Your task to perform on an android device: Open internet settings Image 0: 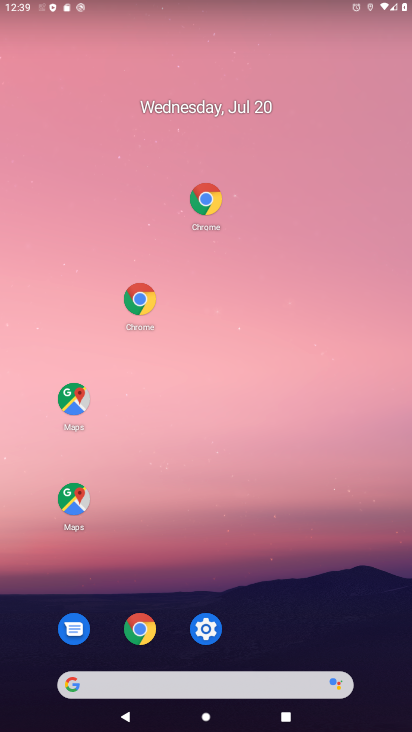
Step 0: drag from (300, 644) to (195, 78)
Your task to perform on an android device: Open internet settings Image 1: 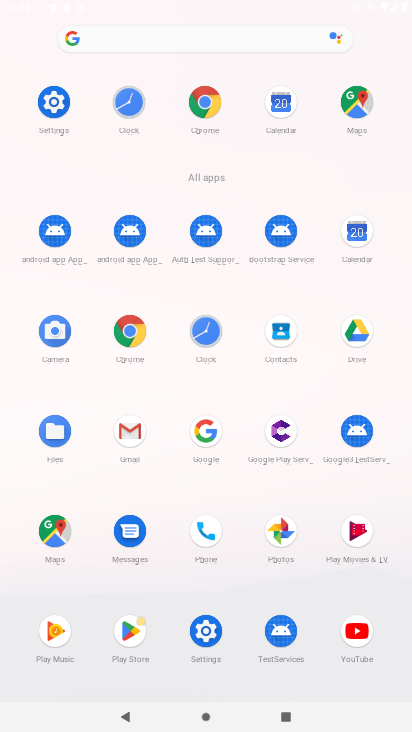
Step 1: click (201, 626)
Your task to perform on an android device: Open internet settings Image 2: 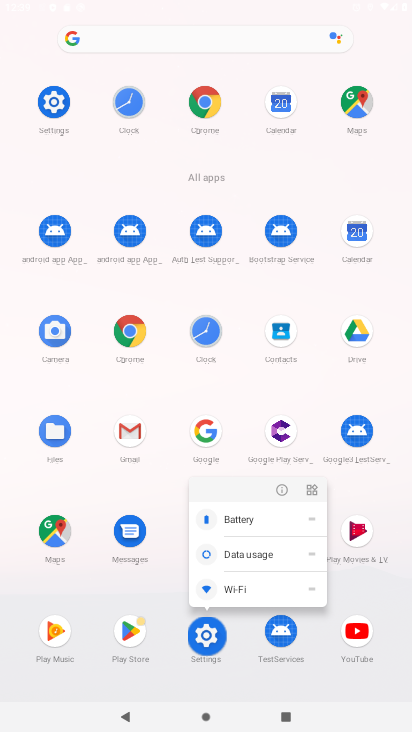
Step 2: click (210, 629)
Your task to perform on an android device: Open internet settings Image 3: 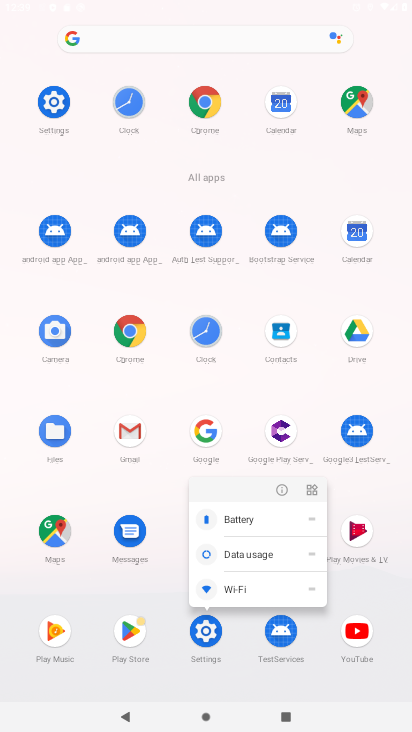
Step 3: click (212, 630)
Your task to perform on an android device: Open internet settings Image 4: 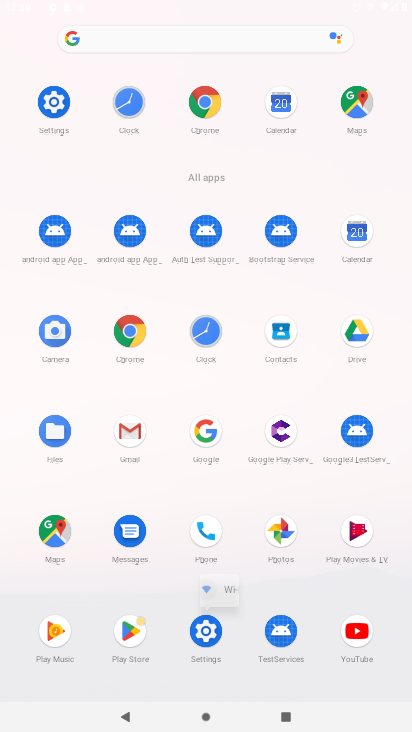
Step 4: click (212, 630)
Your task to perform on an android device: Open internet settings Image 5: 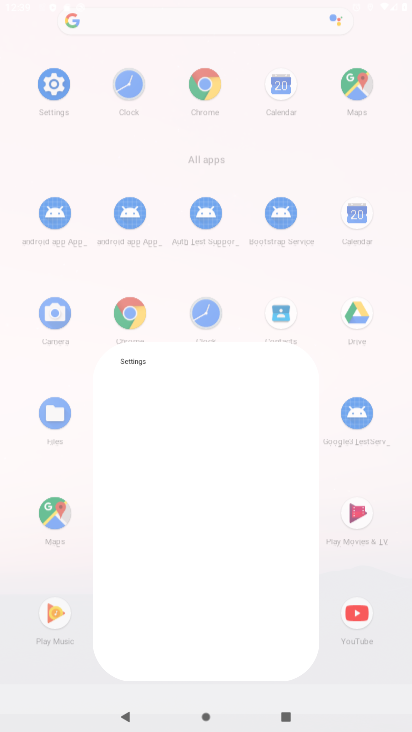
Step 5: click (212, 630)
Your task to perform on an android device: Open internet settings Image 6: 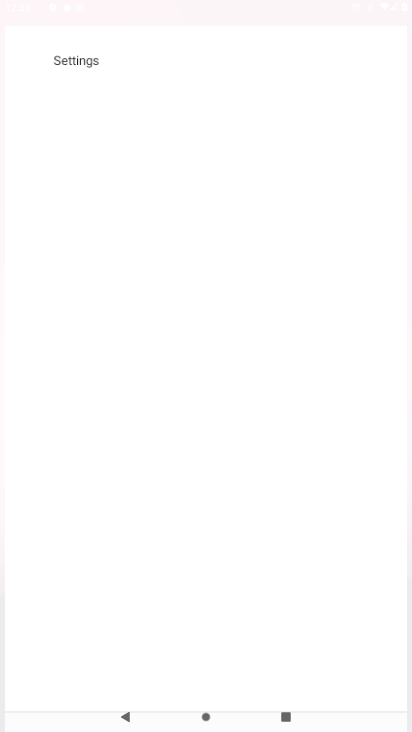
Step 6: click (212, 628)
Your task to perform on an android device: Open internet settings Image 7: 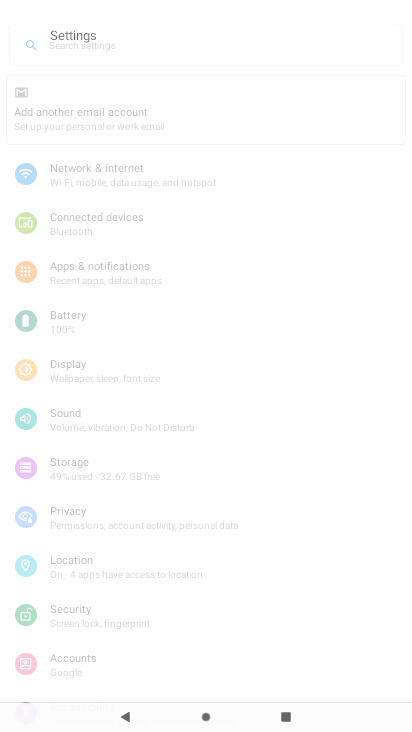
Step 7: click (214, 629)
Your task to perform on an android device: Open internet settings Image 8: 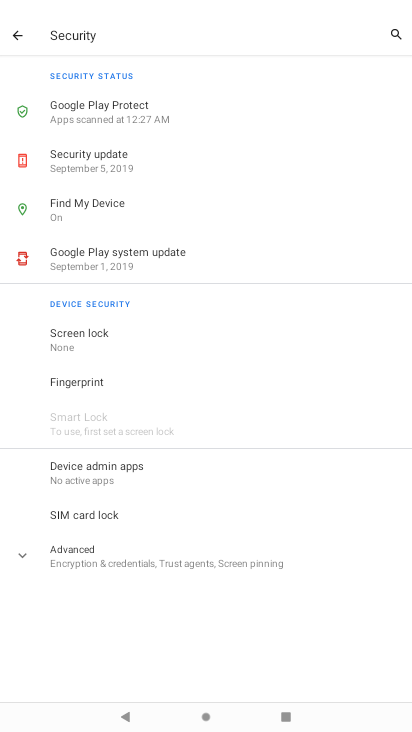
Step 8: click (16, 32)
Your task to perform on an android device: Open internet settings Image 9: 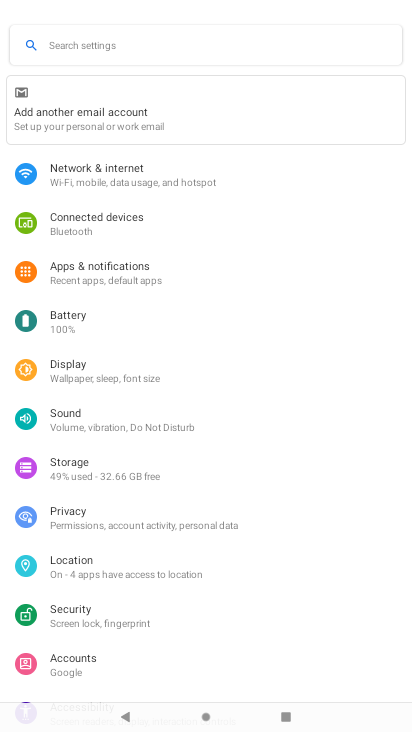
Step 9: click (102, 174)
Your task to perform on an android device: Open internet settings Image 10: 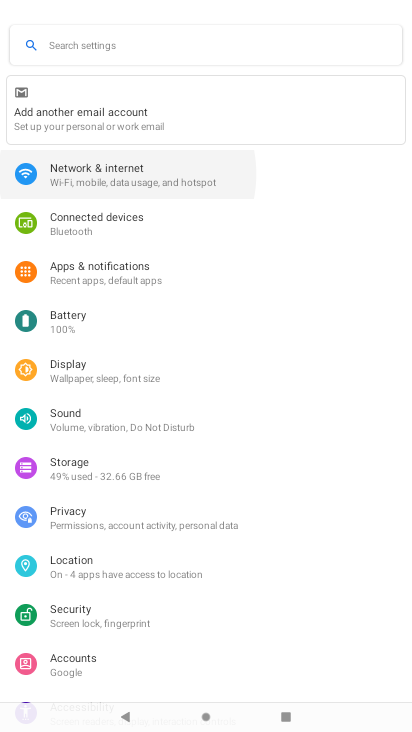
Step 10: click (102, 174)
Your task to perform on an android device: Open internet settings Image 11: 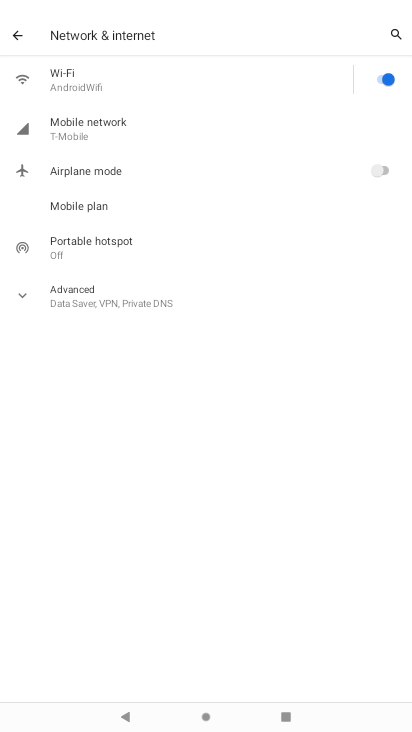
Step 11: task complete